Your task to perform on an android device: turn on airplane mode Image 0: 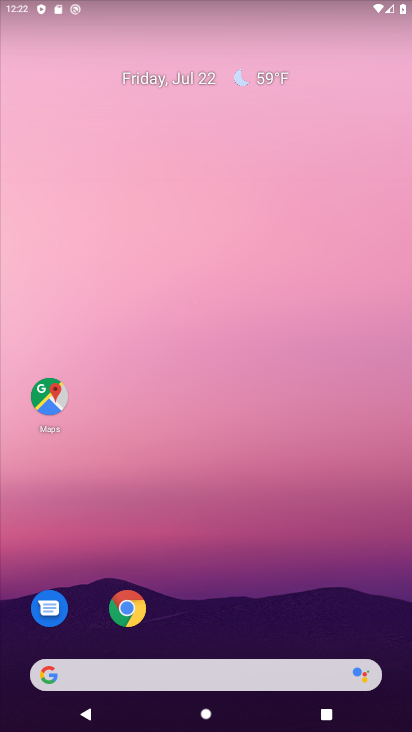
Step 0: drag from (207, 602) to (233, 20)
Your task to perform on an android device: turn on airplane mode Image 1: 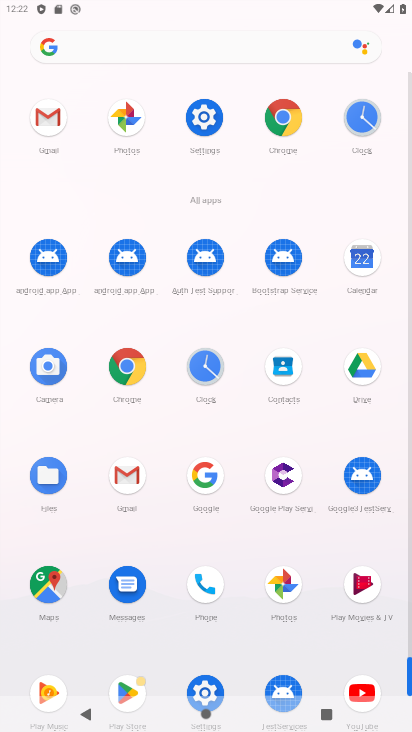
Step 1: click (202, 145)
Your task to perform on an android device: turn on airplane mode Image 2: 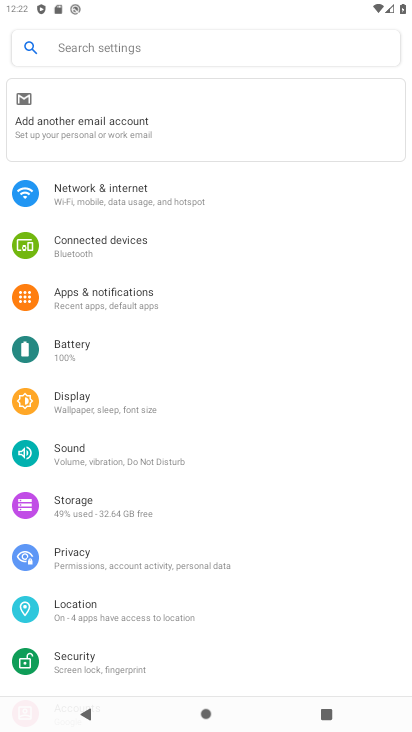
Step 2: click (145, 190)
Your task to perform on an android device: turn on airplane mode Image 3: 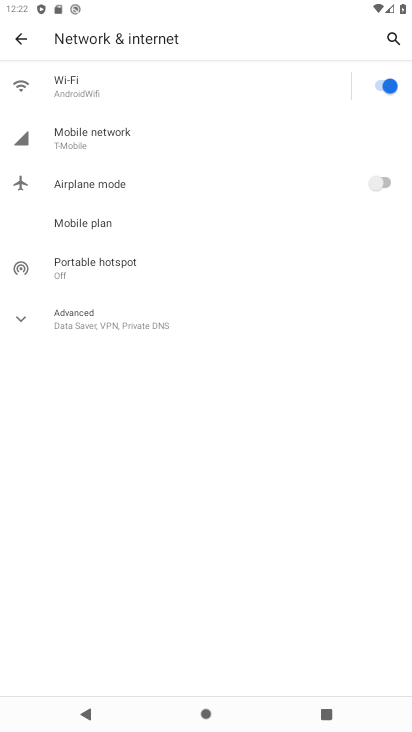
Step 3: click (397, 183)
Your task to perform on an android device: turn on airplane mode Image 4: 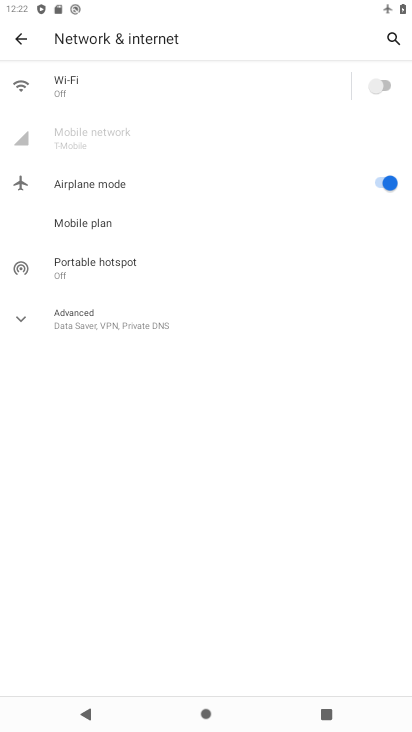
Step 4: task complete